Your task to perform on an android device: delete a single message in the gmail app Image 0: 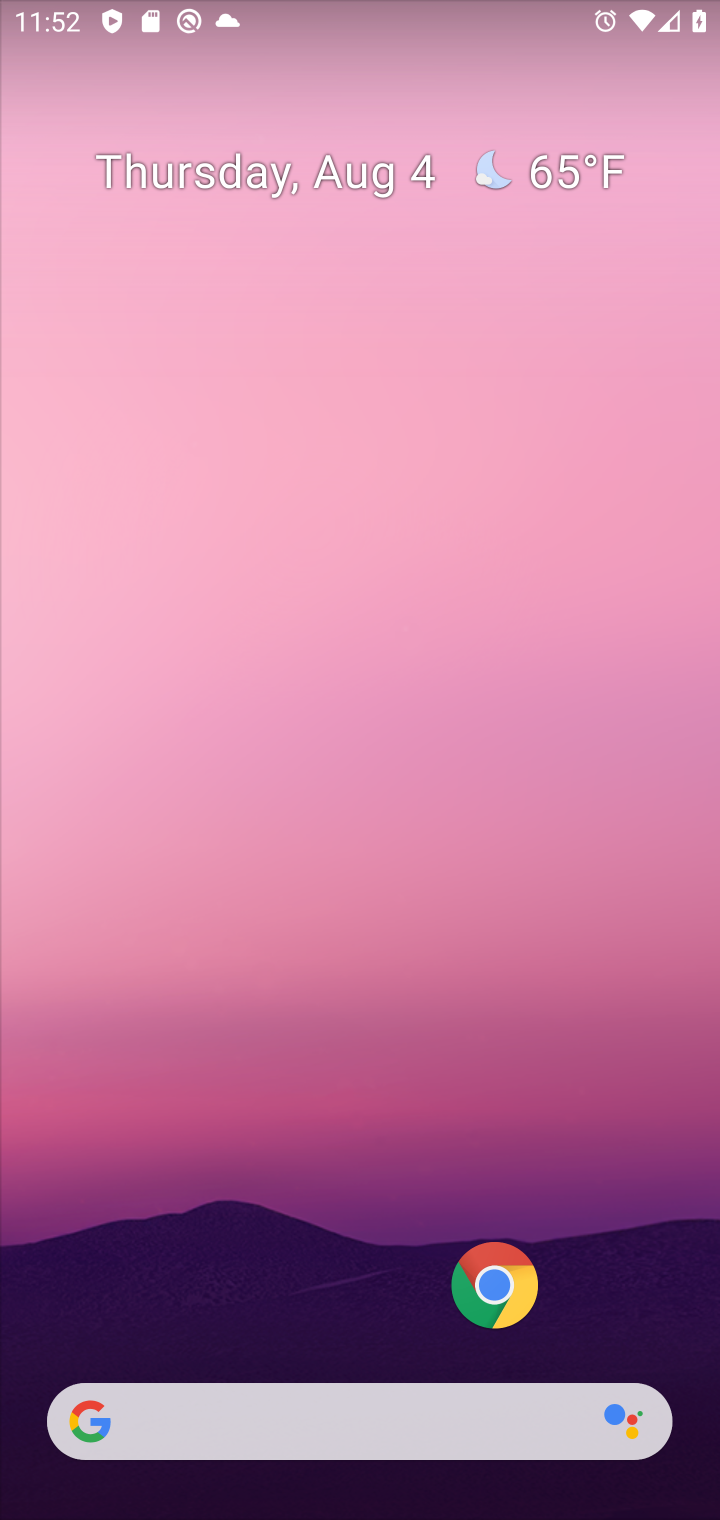
Step 0: drag from (457, 1325) to (353, 25)
Your task to perform on an android device: delete a single message in the gmail app Image 1: 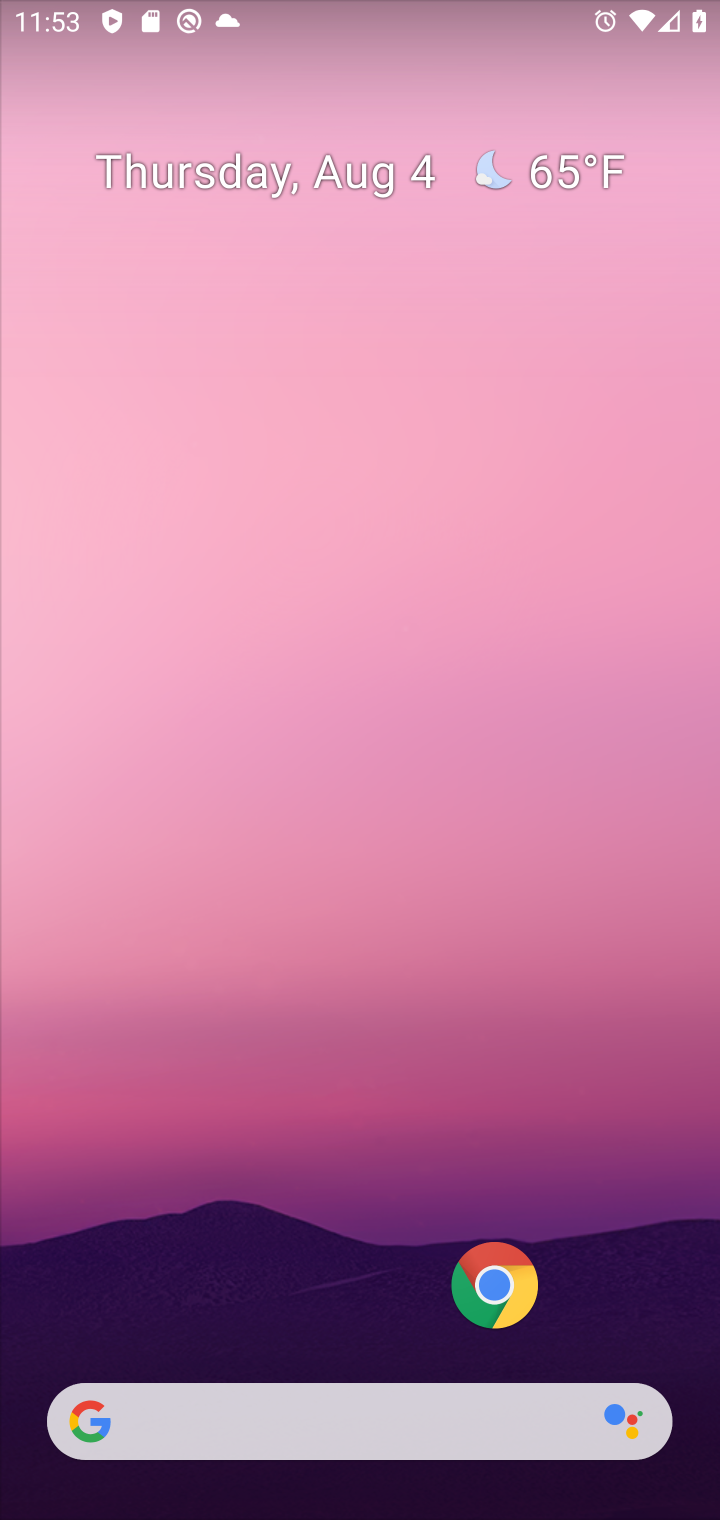
Step 1: drag from (67, 1260) to (0, 239)
Your task to perform on an android device: delete a single message in the gmail app Image 2: 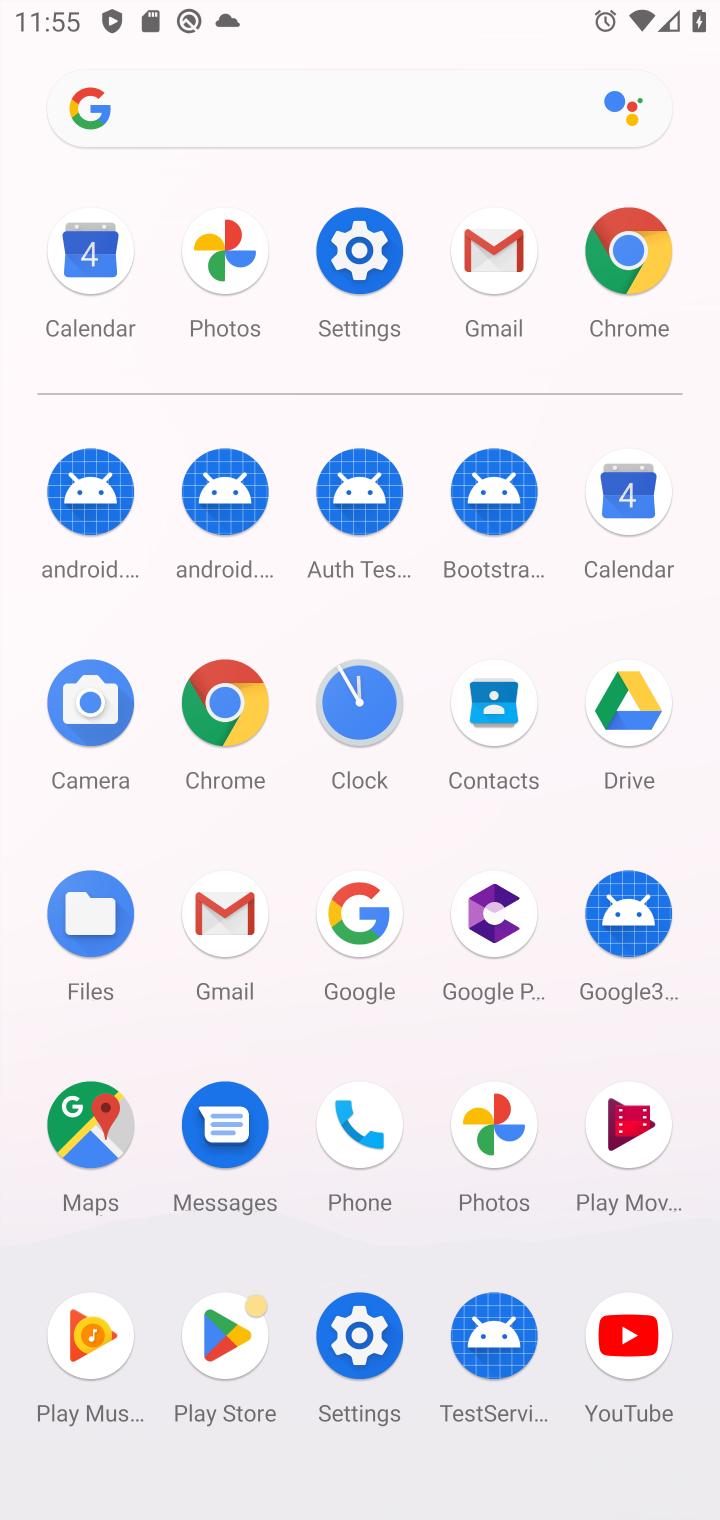
Step 2: click (199, 912)
Your task to perform on an android device: delete a single message in the gmail app Image 3: 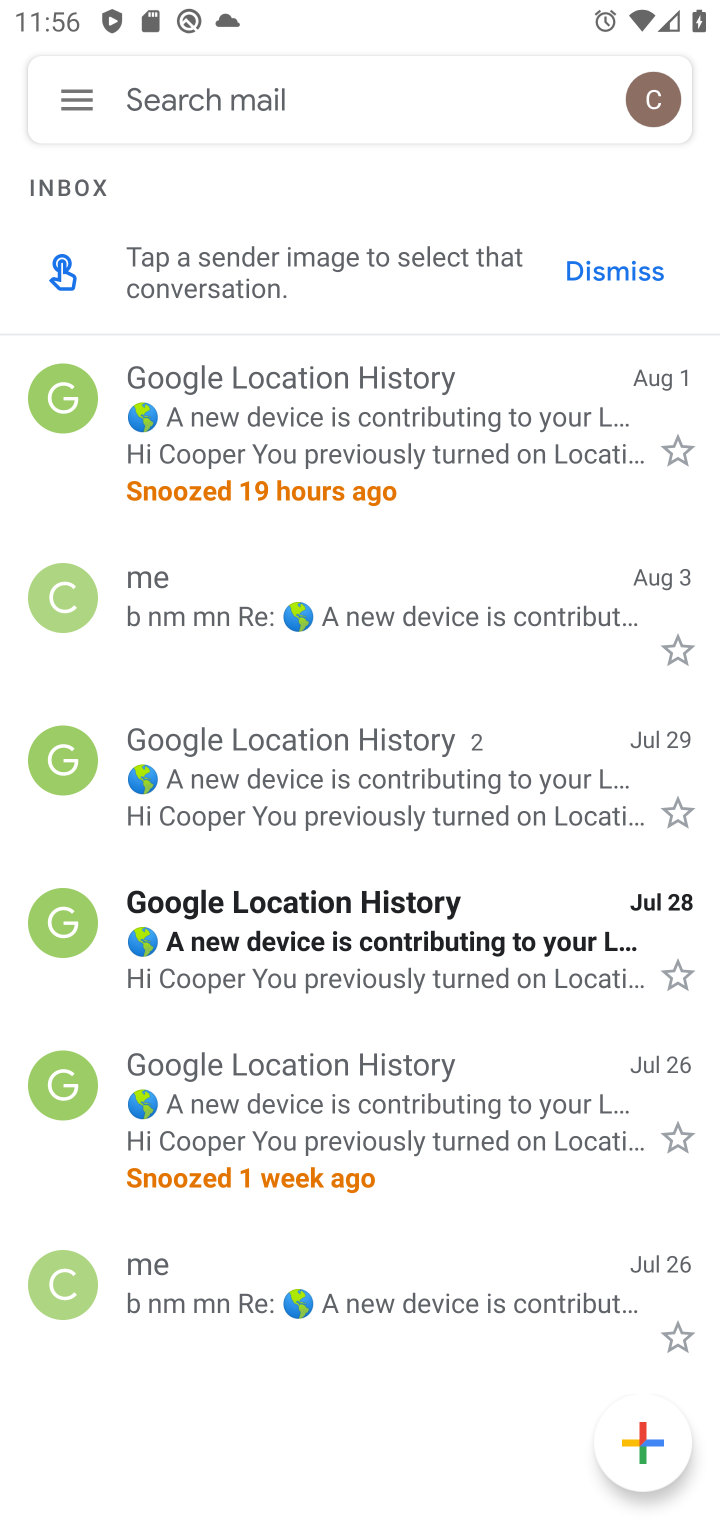
Step 3: click (256, 497)
Your task to perform on an android device: delete a single message in the gmail app Image 4: 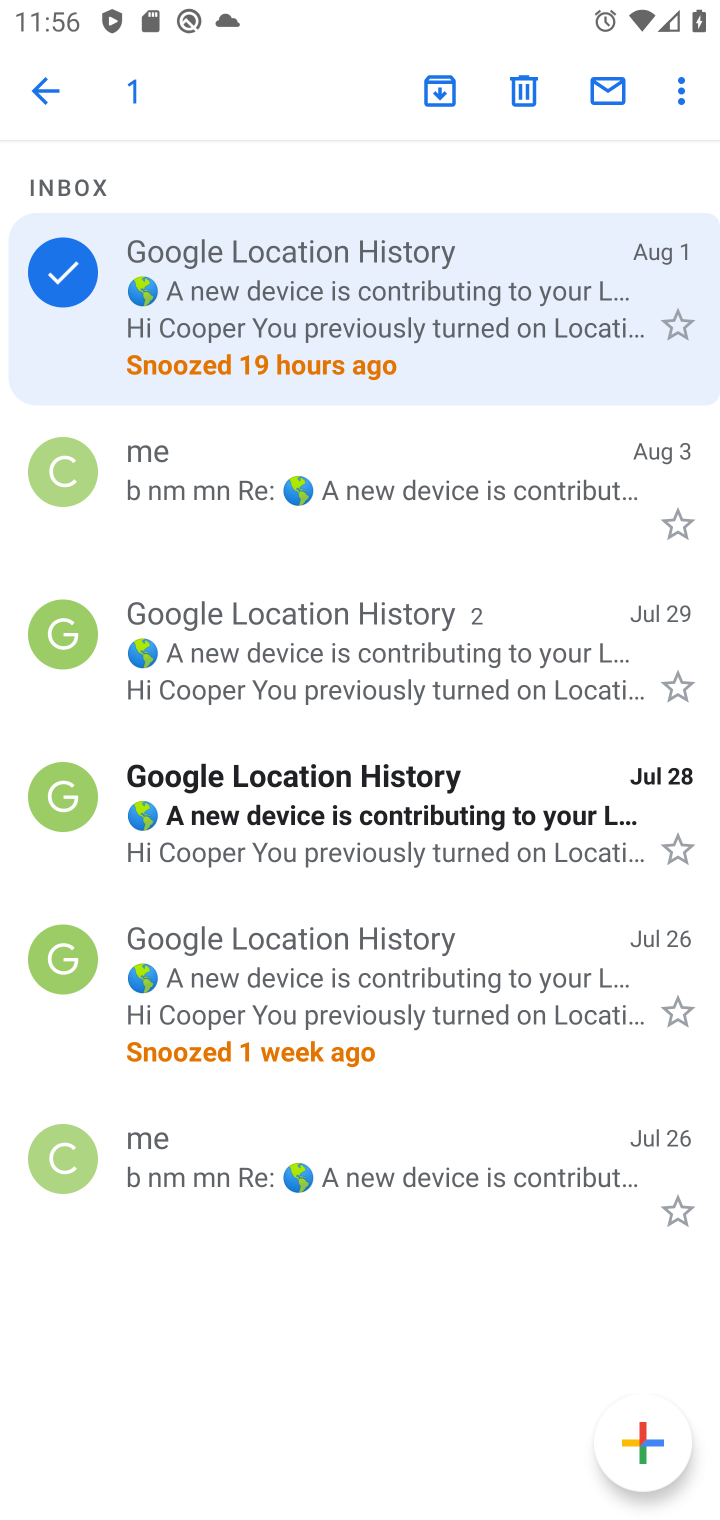
Step 4: click (533, 97)
Your task to perform on an android device: delete a single message in the gmail app Image 5: 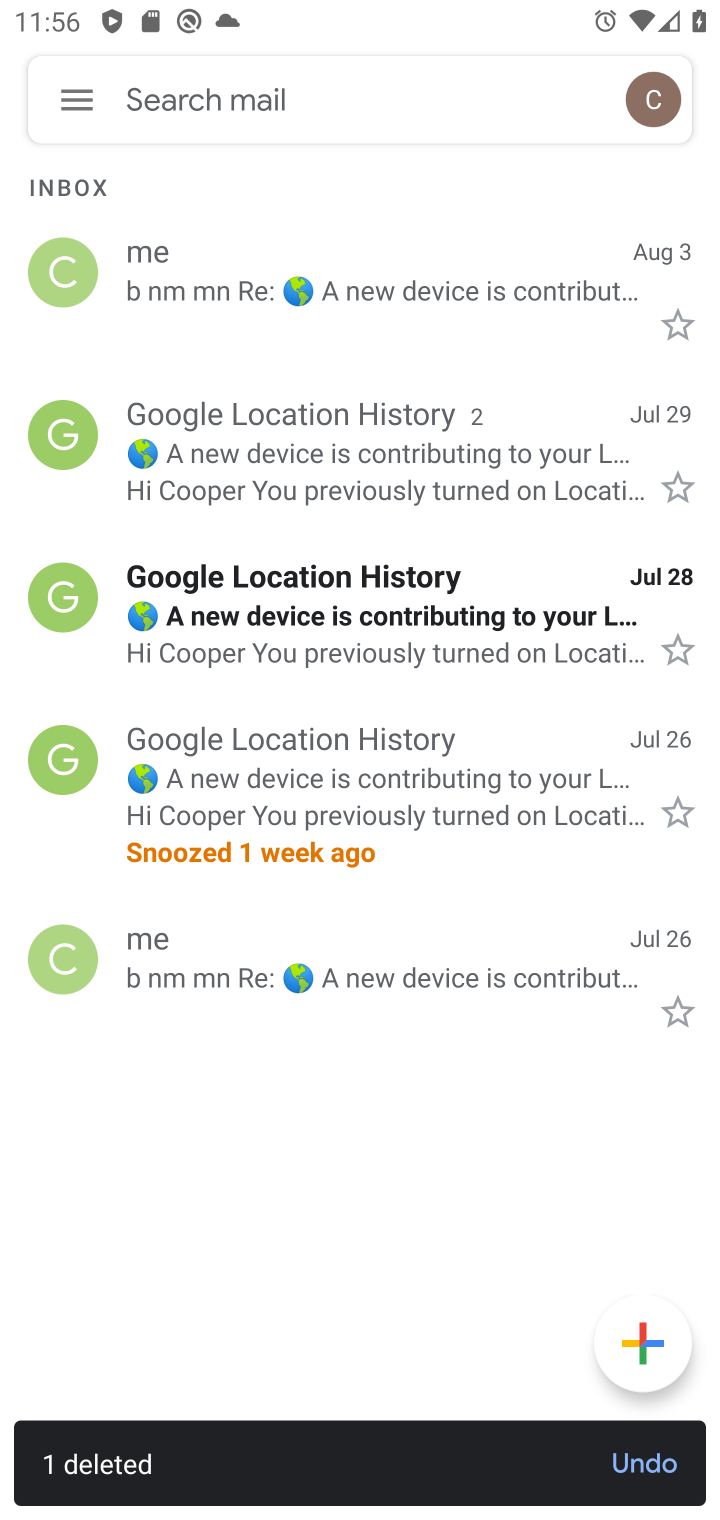
Step 5: task complete